Your task to perform on an android device: Show me popular games on the Play Store Image 0: 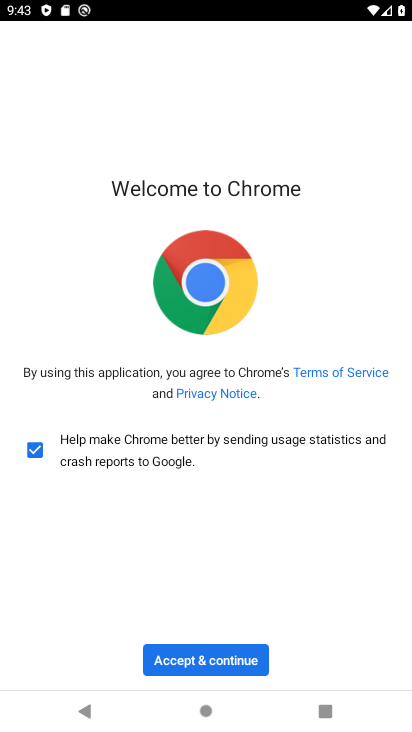
Step 0: press home button
Your task to perform on an android device: Show me popular games on the Play Store Image 1: 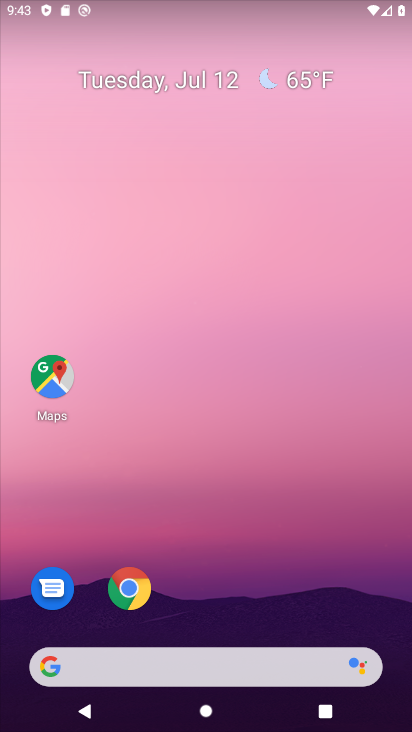
Step 1: drag from (31, 715) to (199, 172)
Your task to perform on an android device: Show me popular games on the Play Store Image 2: 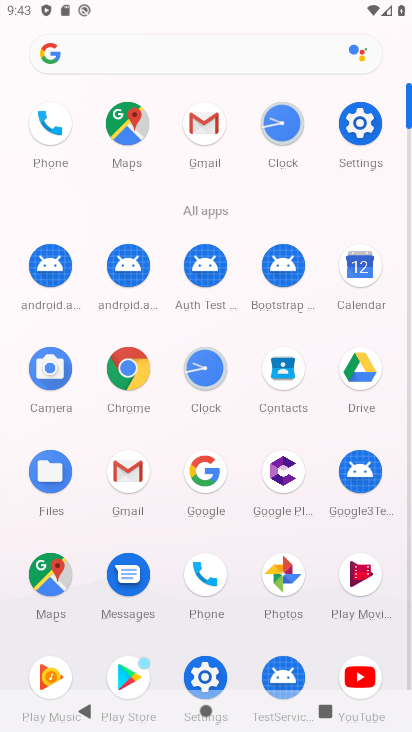
Step 2: click (122, 682)
Your task to perform on an android device: Show me popular games on the Play Store Image 3: 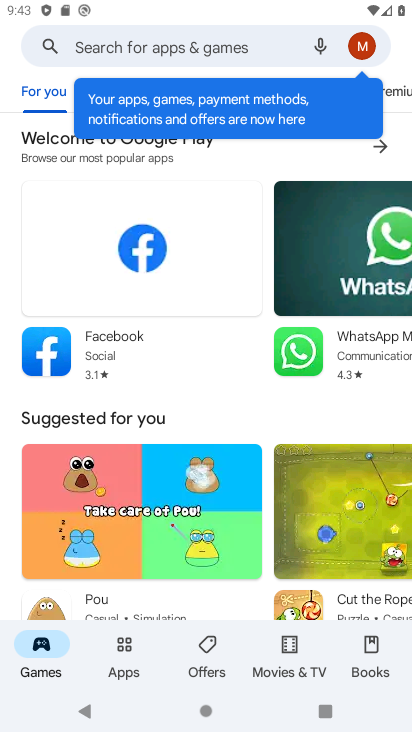
Step 3: click (104, 56)
Your task to perform on an android device: Show me popular games on the Play Store Image 4: 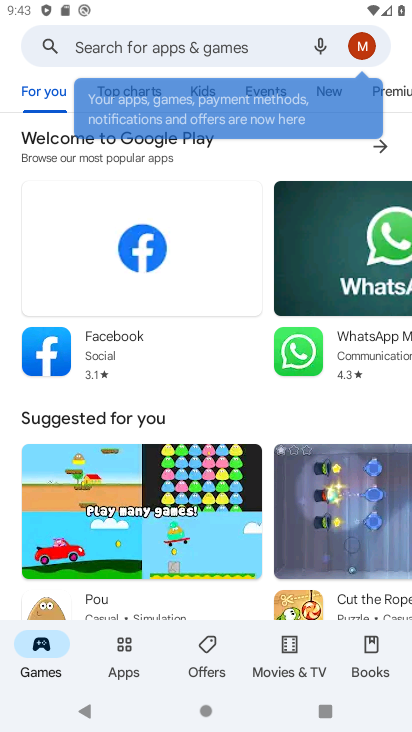
Step 4: click (96, 47)
Your task to perform on an android device: Show me popular games on the Play Store Image 5: 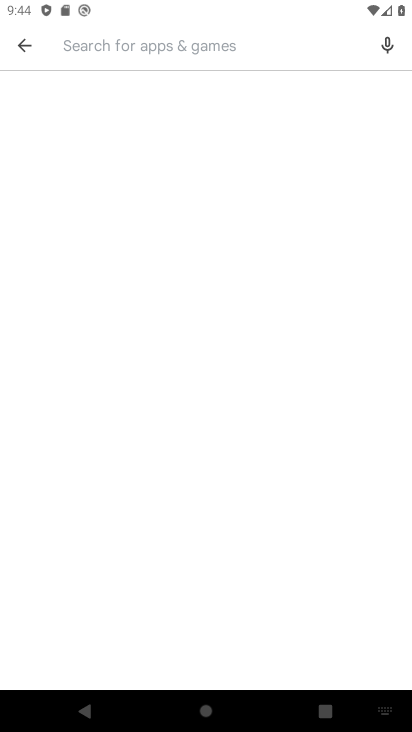
Step 5: type "popular games"
Your task to perform on an android device: Show me popular games on the Play Store Image 6: 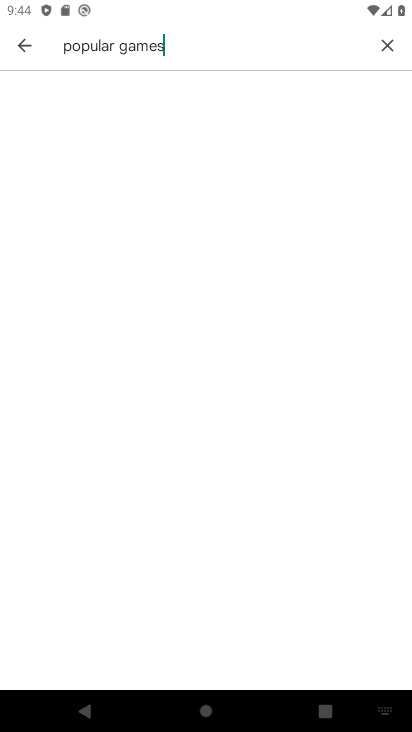
Step 6: type ""
Your task to perform on an android device: Show me popular games on the Play Store Image 7: 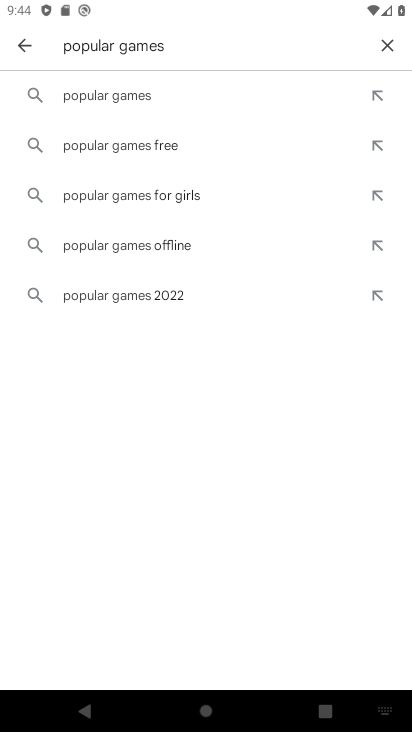
Step 7: click (104, 94)
Your task to perform on an android device: Show me popular games on the Play Store Image 8: 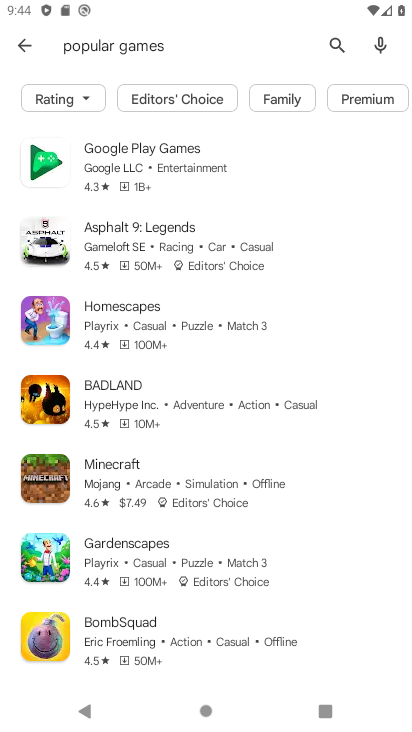
Step 8: task complete